Your task to perform on an android device: Check the news Image 0: 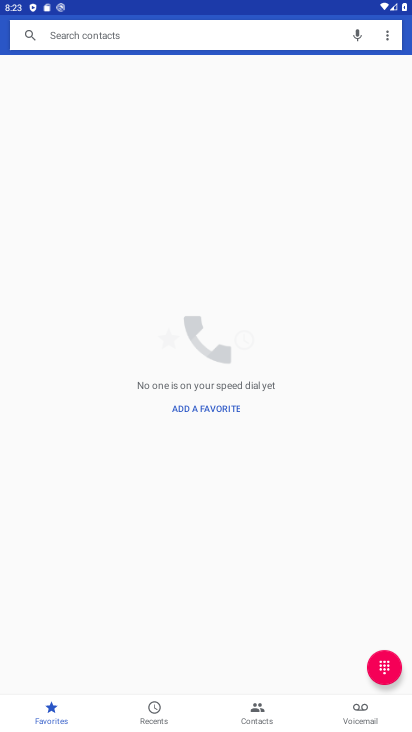
Step 0: press home button
Your task to perform on an android device: Check the news Image 1: 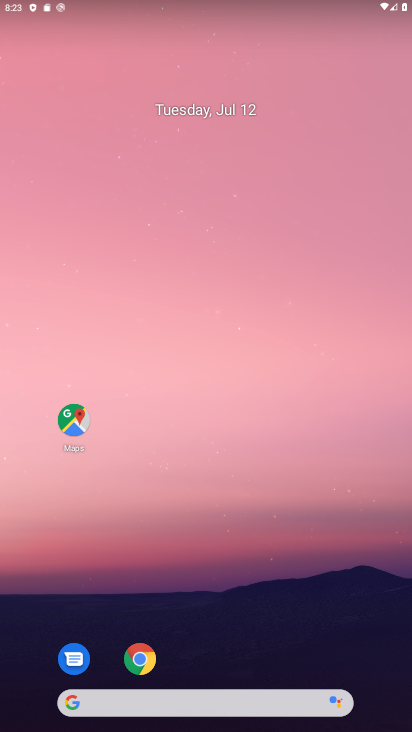
Step 1: drag from (4, 250) to (385, 301)
Your task to perform on an android device: Check the news Image 2: 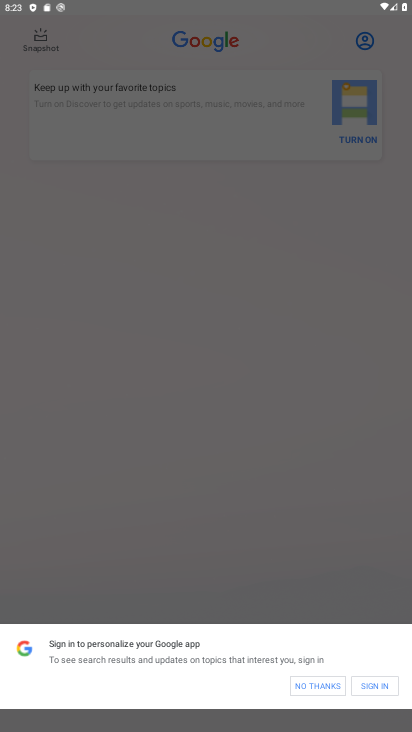
Step 2: click (325, 690)
Your task to perform on an android device: Check the news Image 3: 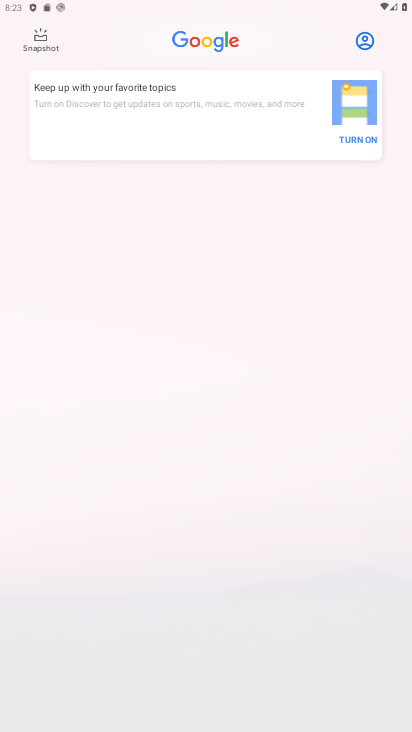
Step 3: task complete